Your task to perform on an android device: Show me productivity apps on the Play Store Image 0: 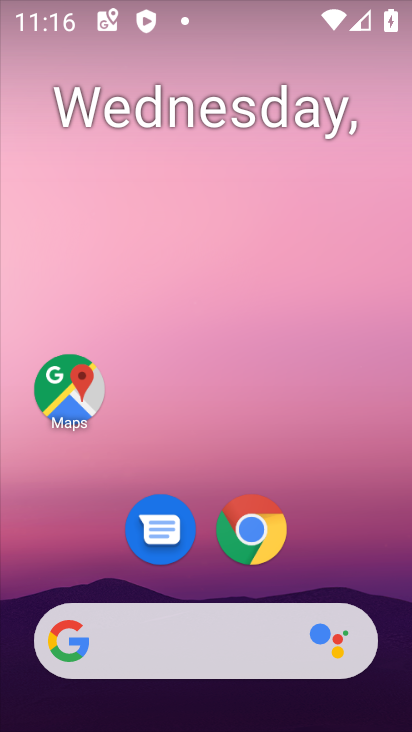
Step 0: drag from (171, 588) to (251, 34)
Your task to perform on an android device: Show me productivity apps on the Play Store Image 1: 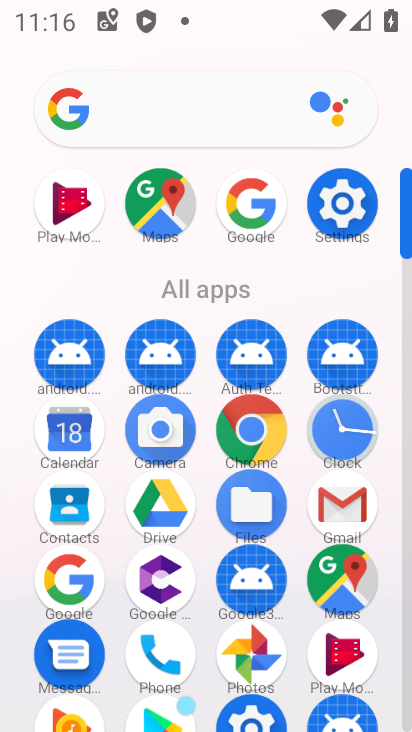
Step 1: click (168, 714)
Your task to perform on an android device: Show me productivity apps on the Play Store Image 2: 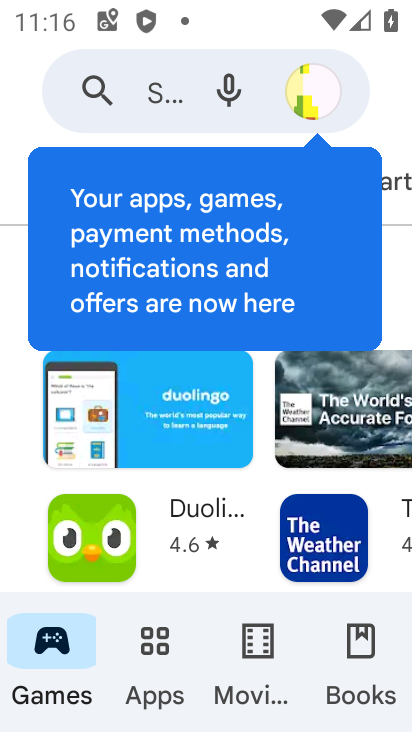
Step 2: click (163, 645)
Your task to perform on an android device: Show me productivity apps on the Play Store Image 3: 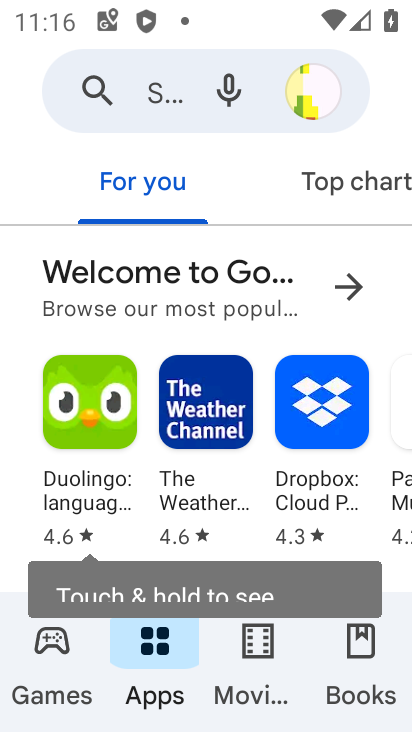
Step 3: drag from (347, 185) to (48, 173)
Your task to perform on an android device: Show me productivity apps on the Play Store Image 4: 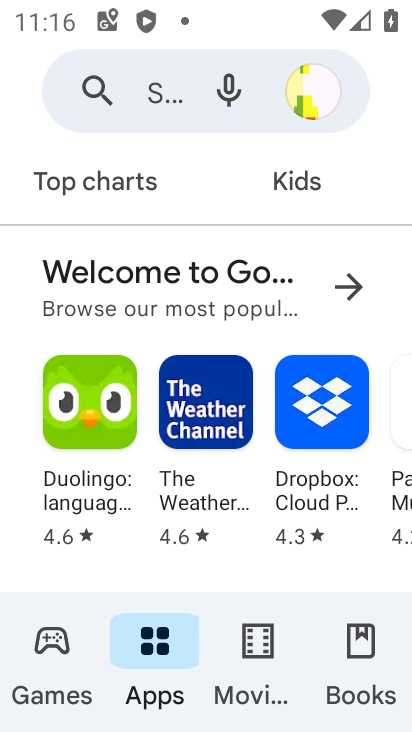
Step 4: drag from (280, 169) to (11, 102)
Your task to perform on an android device: Show me productivity apps on the Play Store Image 5: 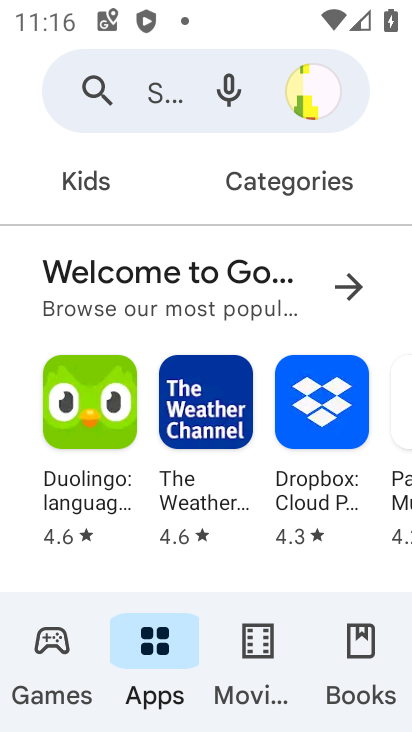
Step 5: click (331, 188)
Your task to perform on an android device: Show me productivity apps on the Play Store Image 6: 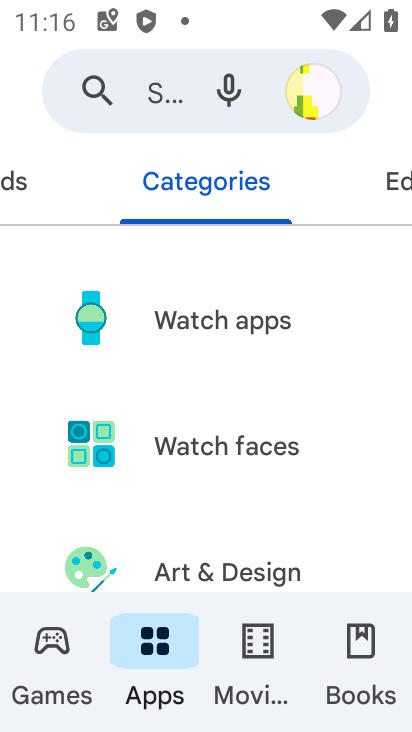
Step 6: drag from (171, 503) to (143, 118)
Your task to perform on an android device: Show me productivity apps on the Play Store Image 7: 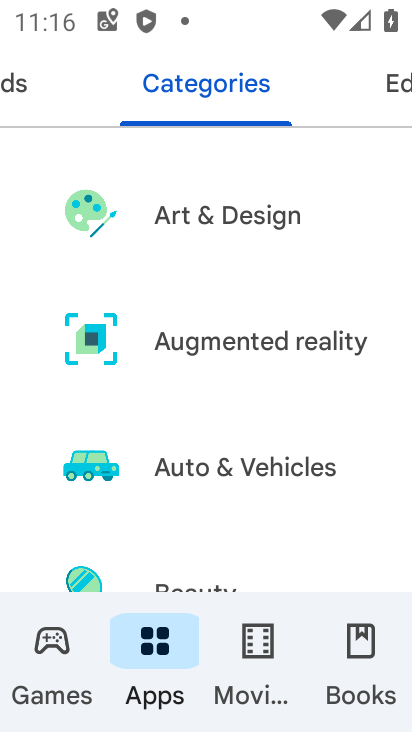
Step 7: drag from (218, 551) to (176, 162)
Your task to perform on an android device: Show me productivity apps on the Play Store Image 8: 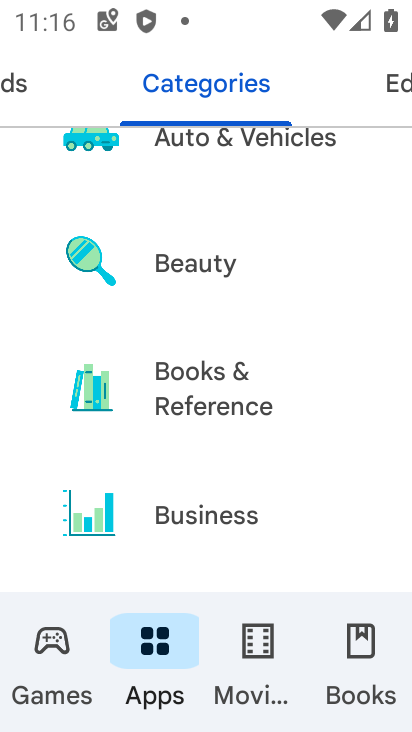
Step 8: drag from (225, 461) to (205, 132)
Your task to perform on an android device: Show me productivity apps on the Play Store Image 9: 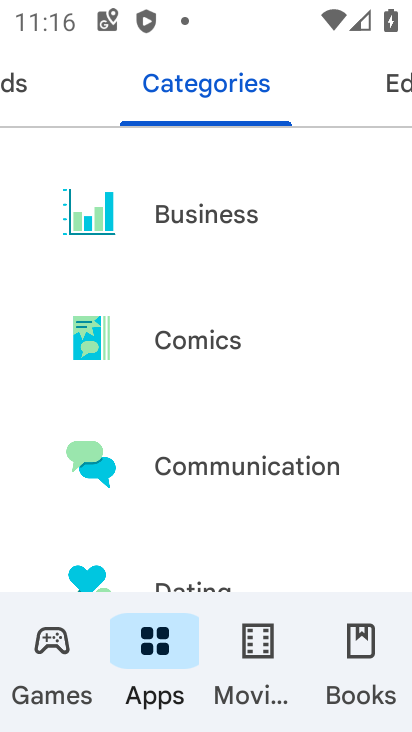
Step 9: drag from (204, 525) to (201, 54)
Your task to perform on an android device: Show me productivity apps on the Play Store Image 10: 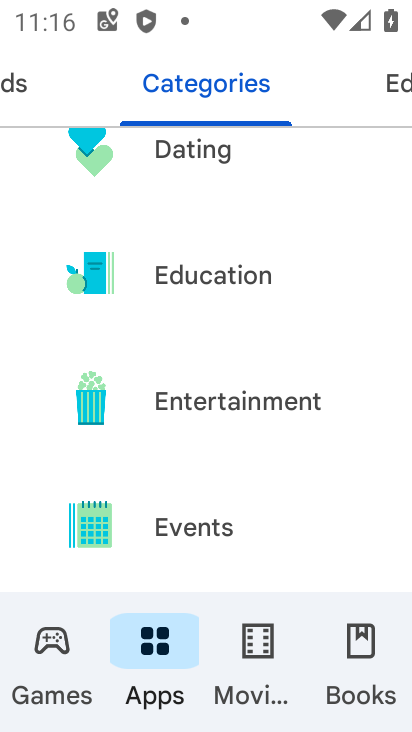
Step 10: drag from (235, 469) to (195, 27)
Your task to perform on an android device: Show me productivity apps on the Play Store Image 11: 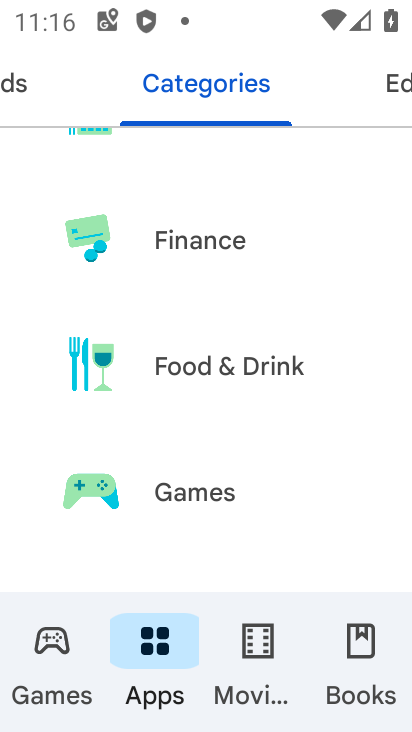
Step 11: drag from (198, 510) to (171, 10)
Your task to perform on an android device: Show me productivity apps on the Play Store Image 12: 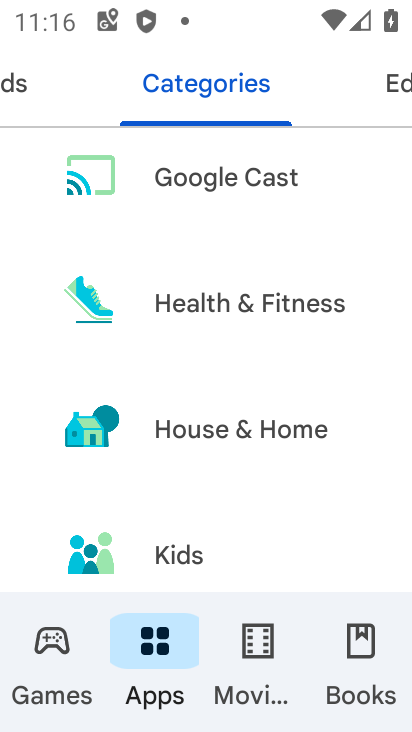
Step 12: drag from (179, 465) to (174, 128)
Your task to perform on an android device: Show me productivity apps on the Play Store Image 13: 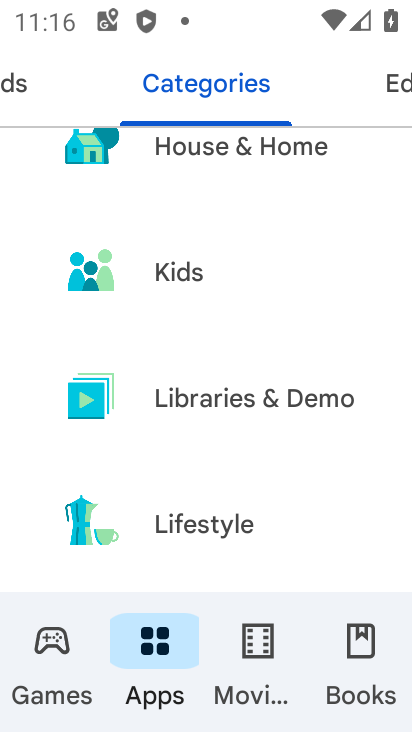
Step 13: drag from (212, 489) to (210, 93)
Your task to perform on an android device: Show me productivity apps on the Play Store Image 14: 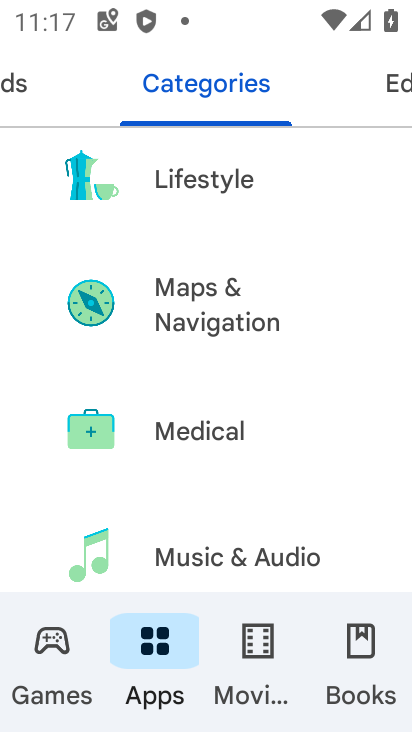
Step 14: drag from (195, 516) to (127, 84)
Your task to perform on an android device: Show me productivity apps on the Play Store Image 15: 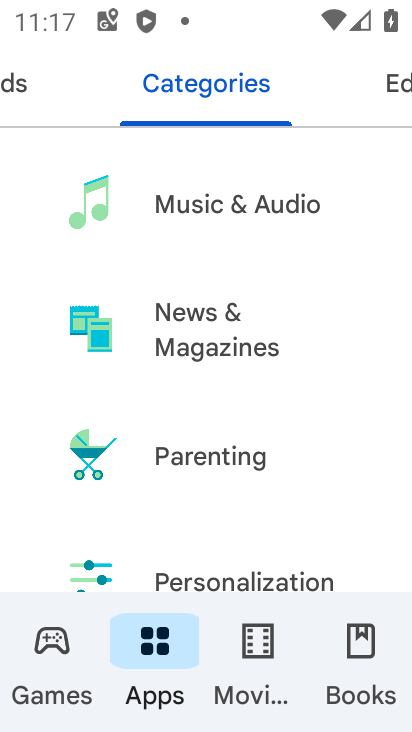
Step 15: drag from (196, 477) to (138, 29)
Your task to perform on an android device: Show me productivity apps on the Play Store Image 16: 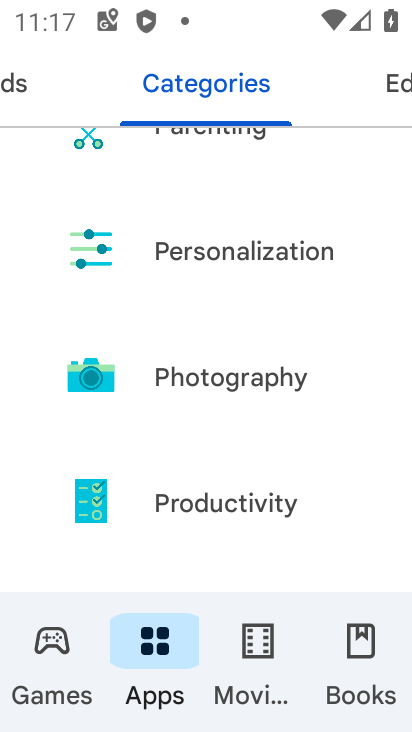
Step 16: drag from (209, 502) to (170, 206)
Your task to perform on an android device: Show me productivity apps on the Play Store Image 17: 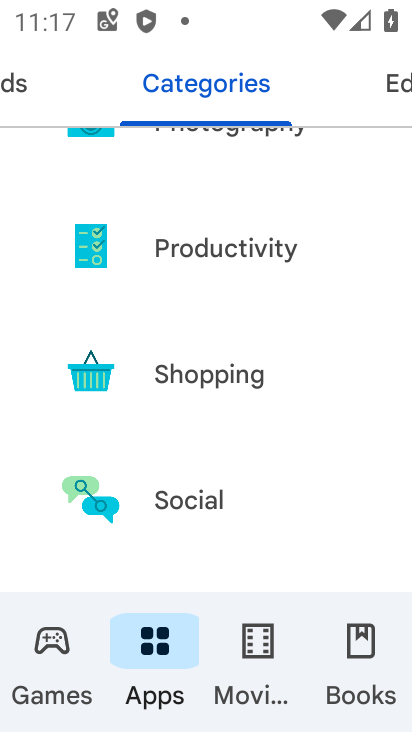
Step 17: click (175, 253)
Your task to perform on an android device: Show me productivity apps on the Play Store Image 18: 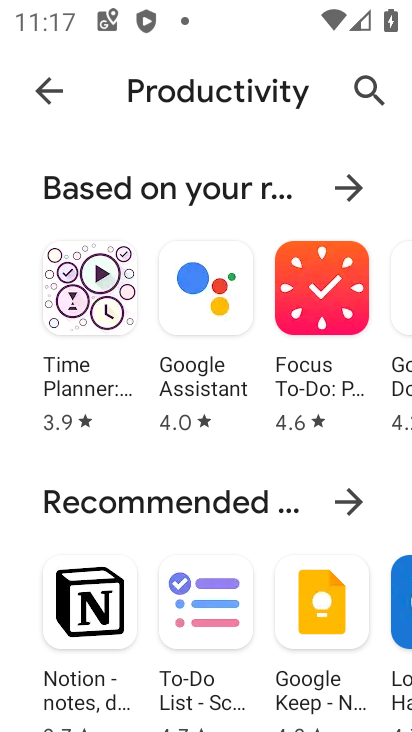
Step 18: task complete